Your task to perform on an android device: Open privacy settings Image 0: 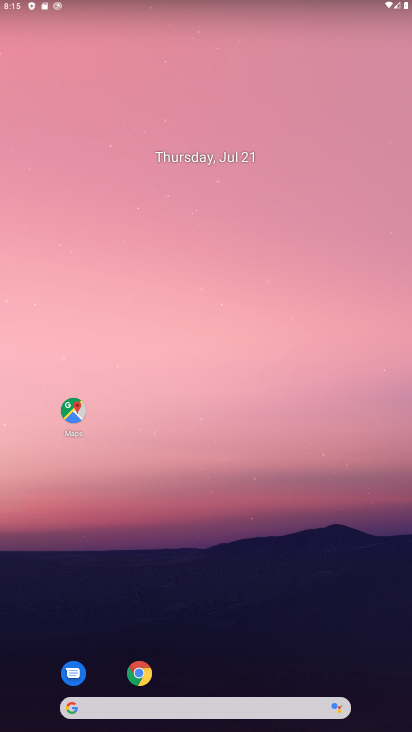
Step 0: drag from (174, 673) to (219, 113)
Your task to perform on an android device: Open privacy settings Image 1: 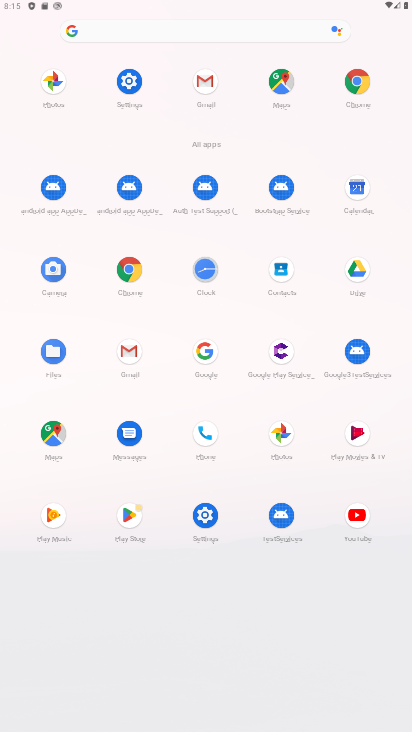
Step 1: click (127, 98)
Your task to perform on an android device: Open privacy settings Image 2: 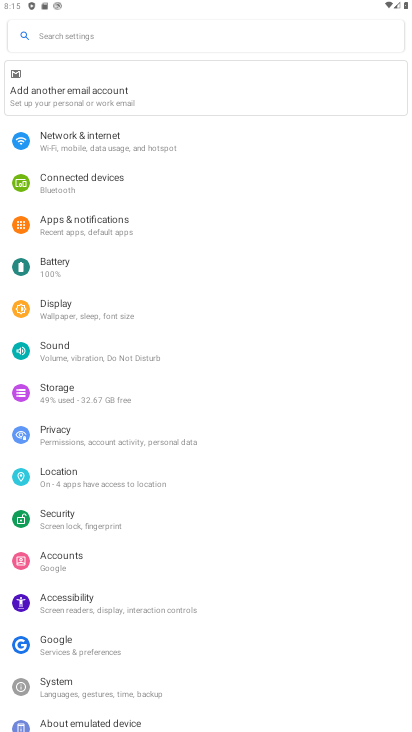
Step 2: click (87, 446)
Your task to perform on an android device: Open privacy settings Image 3: 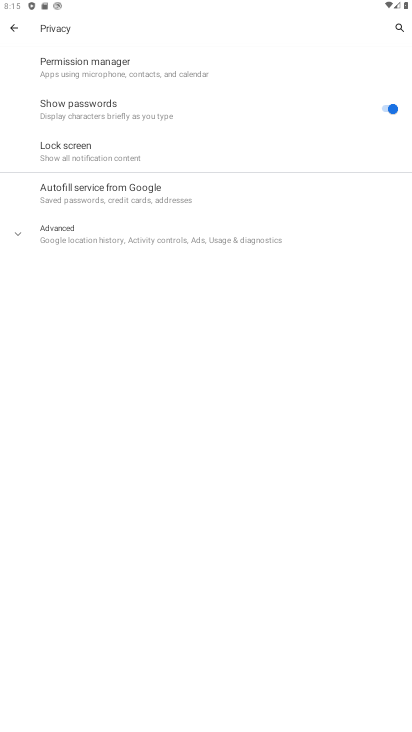
Step 3: task complete